Your task to perform on an android device: change the clock style Image 0: 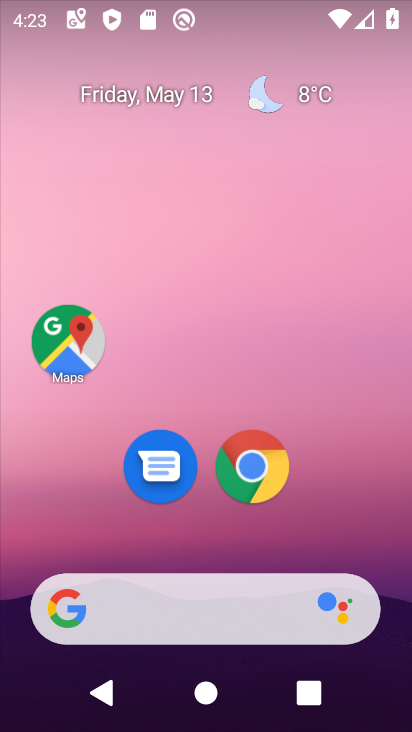
Step 0: drag from (396, 593) to (294, 84)
Your task to perform on an android device: change the clock style Image 1: 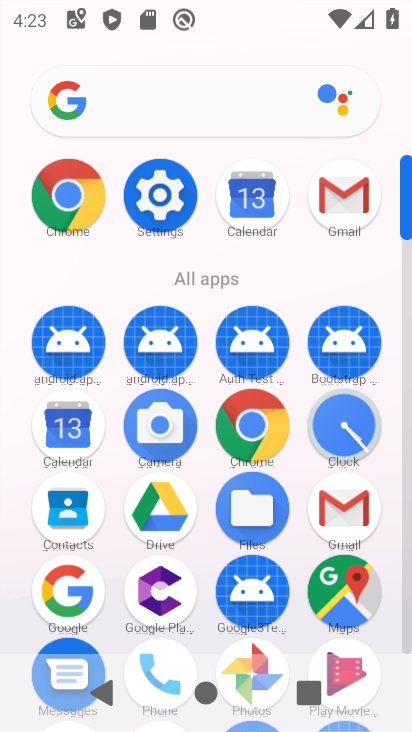
Step 1: click (342, 424)
Your task to perform on an android device: change the clock style Image 2: 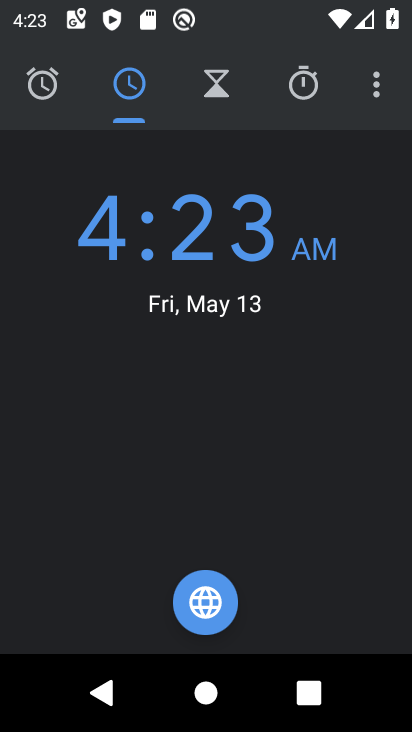
Step 2: click (373, 89)
Your task to perform on an android device: change the clock style Image 3: 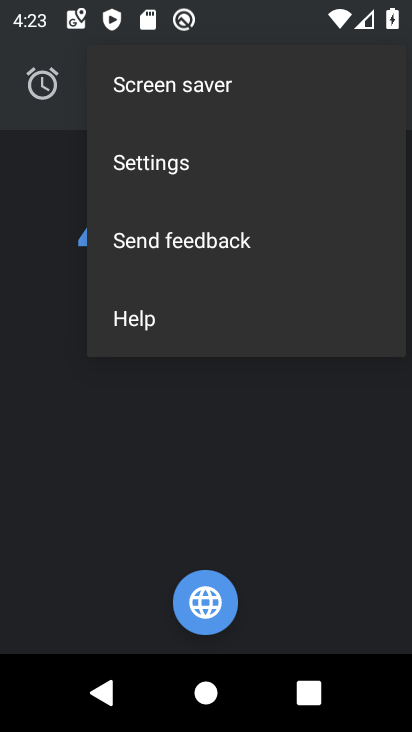
Step 3: click (153, 149)
Your task to perform on an android device: change the clock style Image 4: 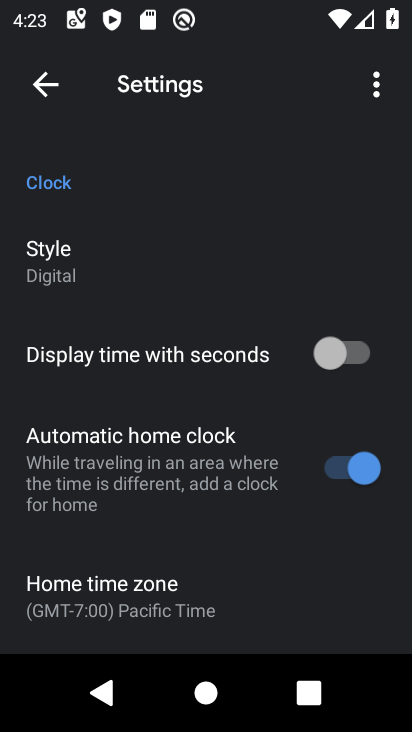
Step 4: click (38, 251)
Your task to perform on an android device: change the clock style Image 5: 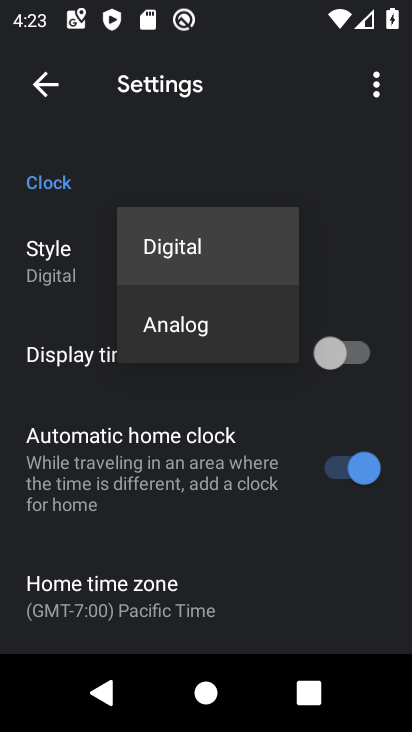
Step 5: click (163, 333)
Your task to perform on an android device: change the clock style Image 6: 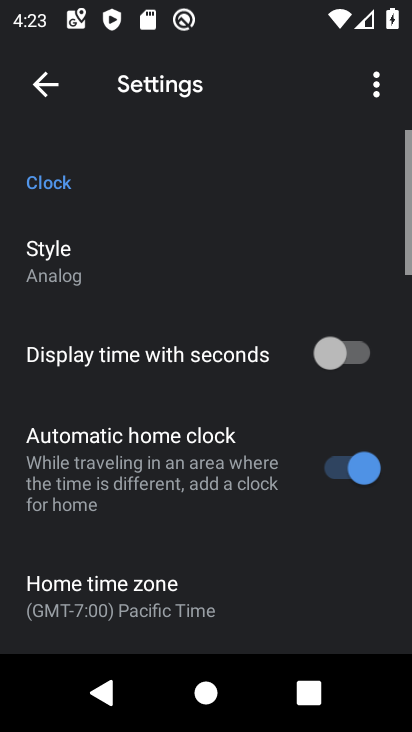
Step 6: task complete